Your task to perform on an android device: Find coffee shops on Maps Image 0: 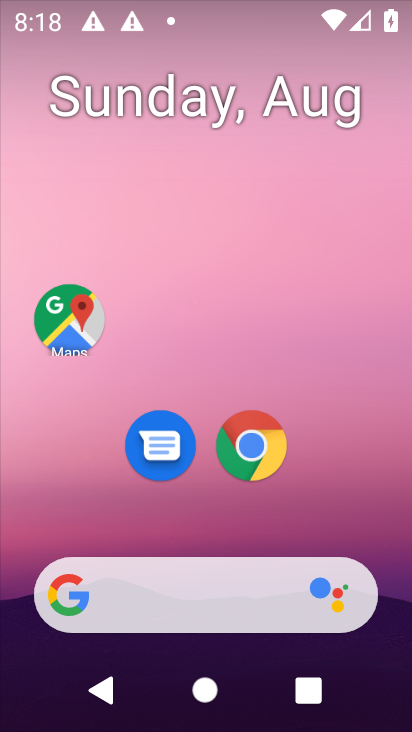
Step 0: click (135, 590)
Your task to perform on an android device: Find coffee shops on Maps Image 1: 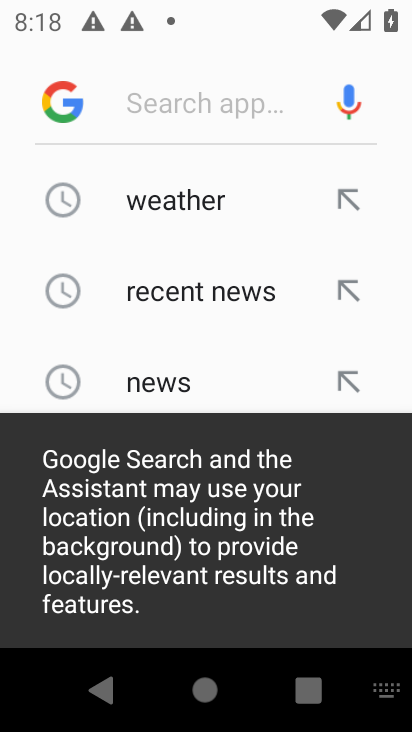
Step 1: press home button
Your task to perform on an android device: Find coffee shops on Maps Image 2: 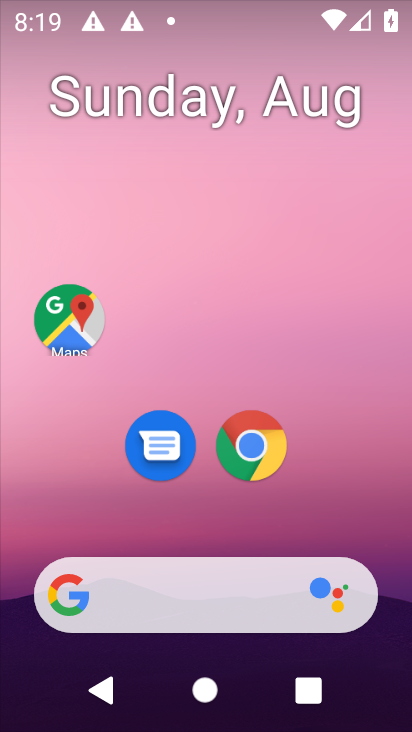
Step 2: click (68, 316)
Your task to perform on an android device: Find coffee shops on Maps Image 3: 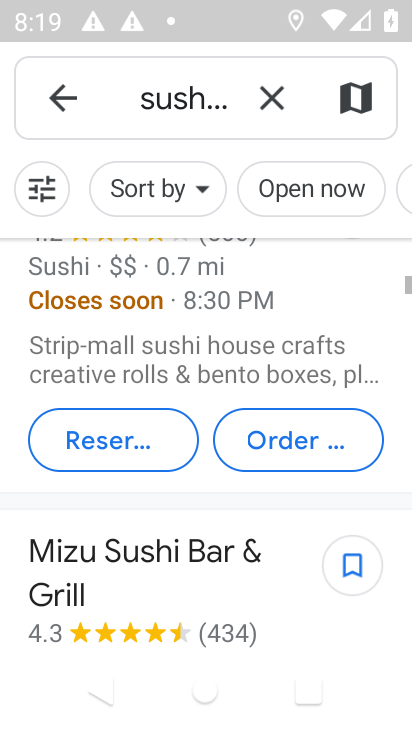
Step 3: click (279, 97)
Your task to perform on an android device: Find coffee shops on Maps Image 4: 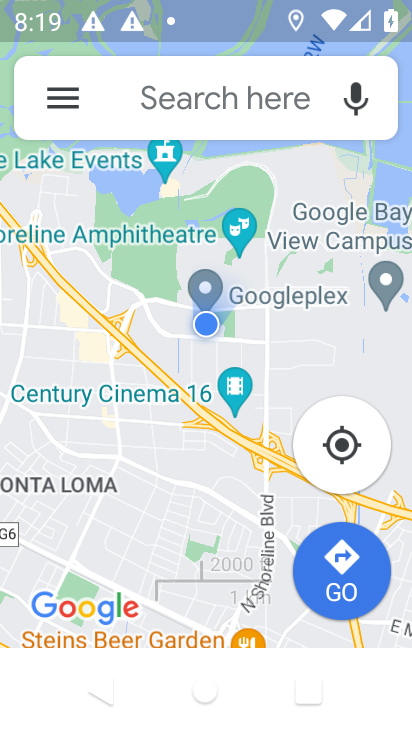
Step 4: click (165, 95)
Your task to perform on an android device: Find coffee shops on Maps Image 5: 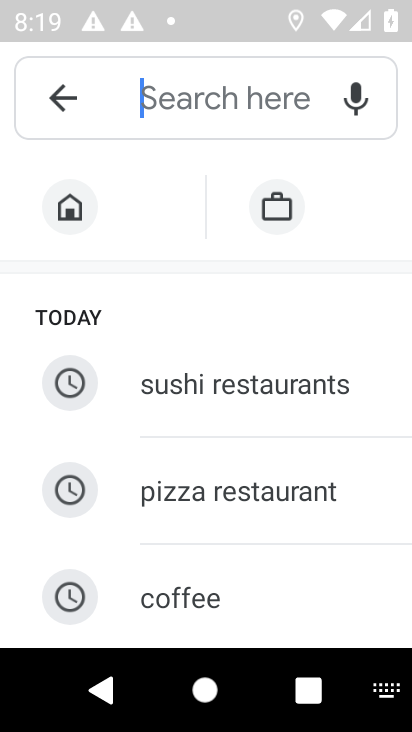
Step 5: click (238, 595)
Your task to perform on an android device: Find coffee shops on Maps Image 6: 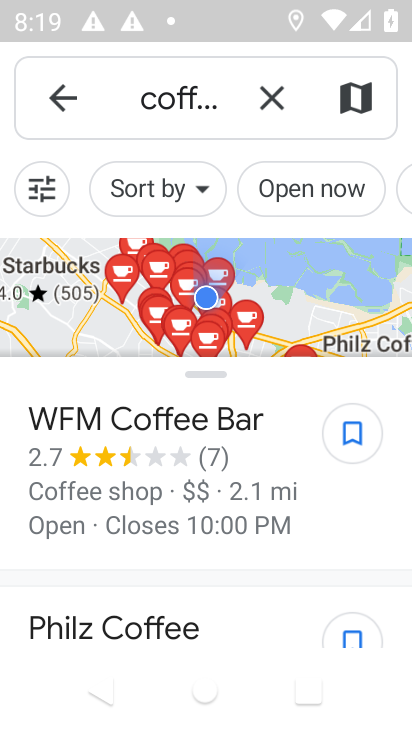
Step 6: task complete